Your task to perform on an android device: change notifications settings Image 0: 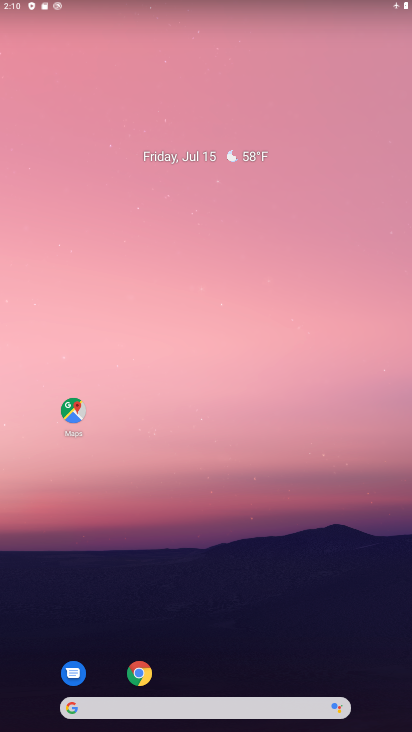
Step 0: drag from (393, 650) to (380, 99)
Your task to perform on an android device: change notifications settings Image 1: 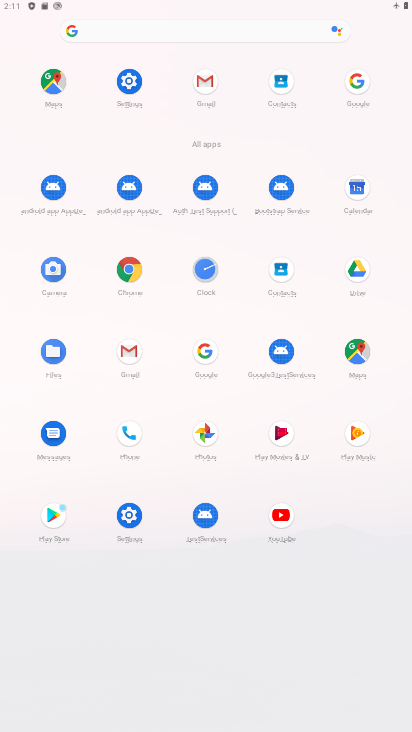
Step 1: click (119, 87)
Your task to perform on an android device: change notifications settings Image 2: 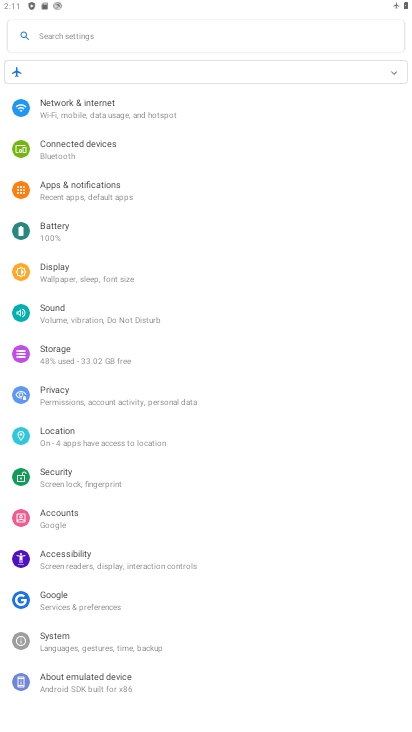
Step 2: click (73, 187)
Your task to perform on an android device: change notifications settings Image 3: 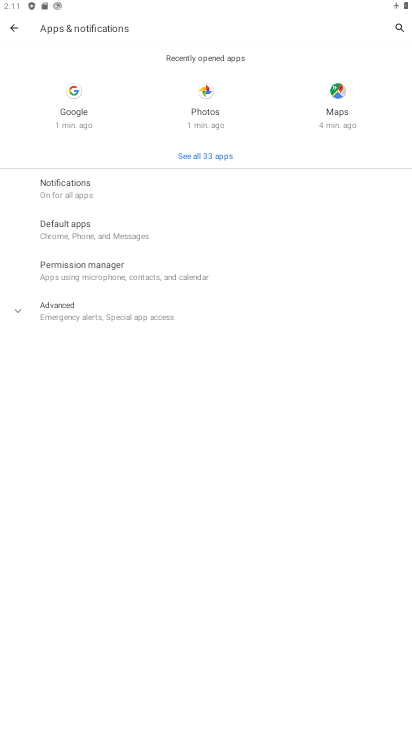
Step 3: click (62, 191)
Your task to perform on an android device: change notifications settings Image 4: 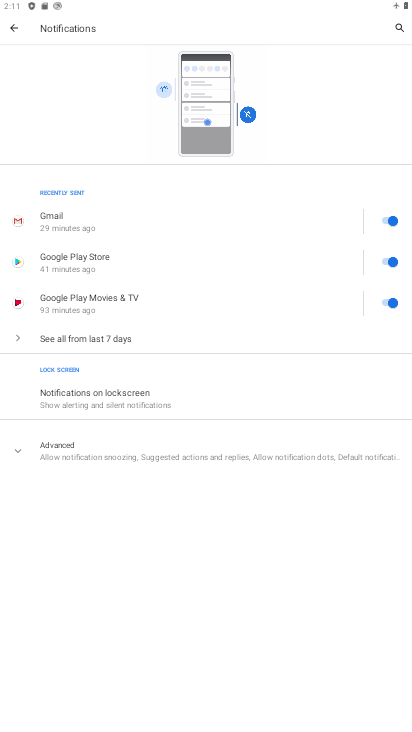
Step 4: click (389, 223)
Your task to perform on an android device: change notifications settings Image 5: 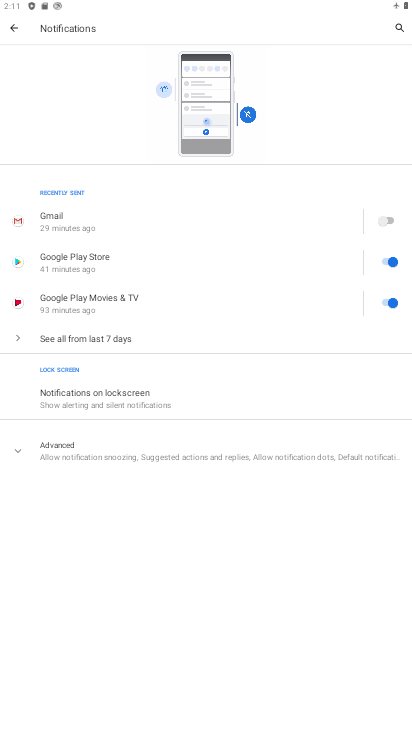
Step 5: click (390, 263)
Your task to perform on an android device: change notifications settings Image 6: 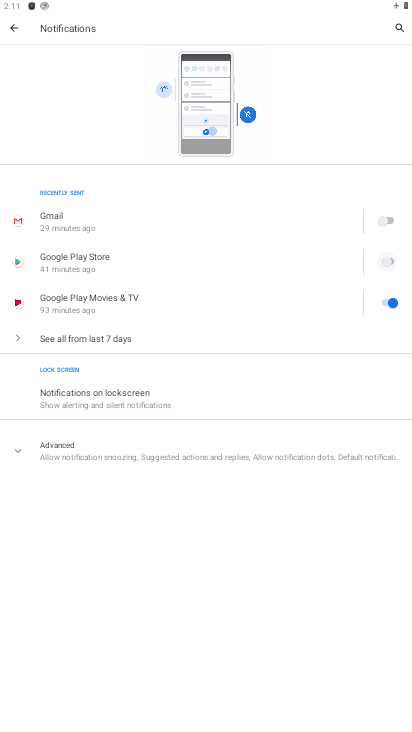
Step 6: click (393, 306)
Your task to perform on an android device: change notifications settings Image 7: 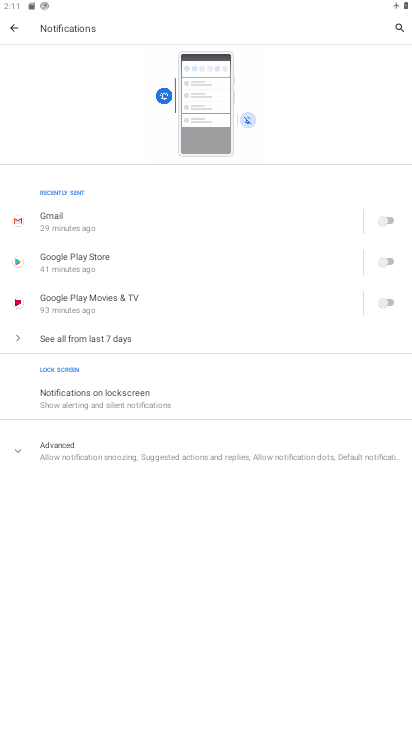
Step 7: task complete